Your task to perform on an android device: Open the Play Movies app and select the watchlist tab. Image 0: 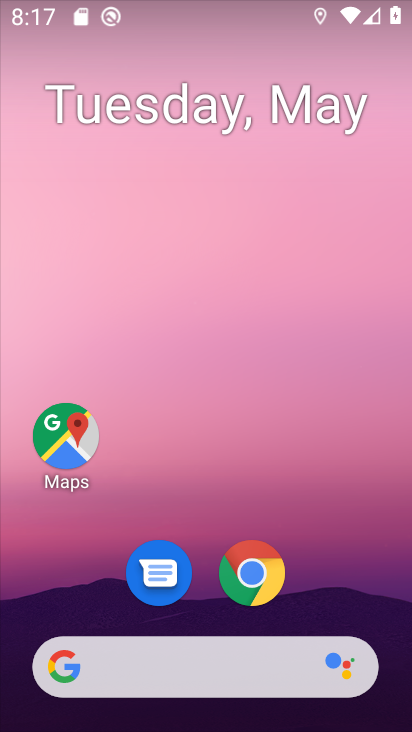
Step 0: drag from (388, 717) to (395, 305)
Your task to perform on an android device: Open the Play Movies app and select the watchlist tab. Image 1: 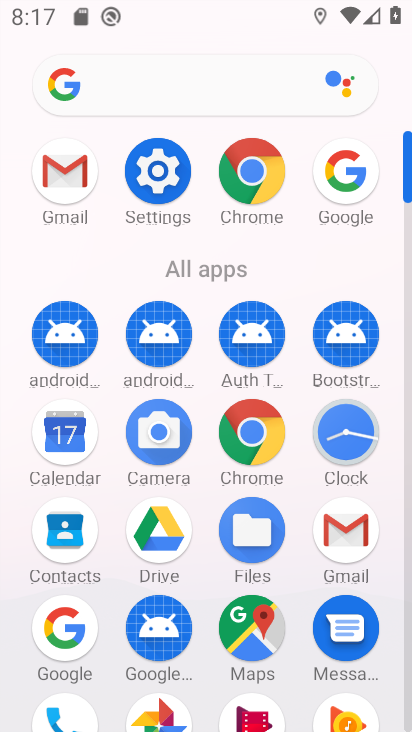
Step 1: drag from (406, 137) to (396, 34)
Your task to perform on an android device: Open the Play Movies app and select the watchlist tab. Image 2: 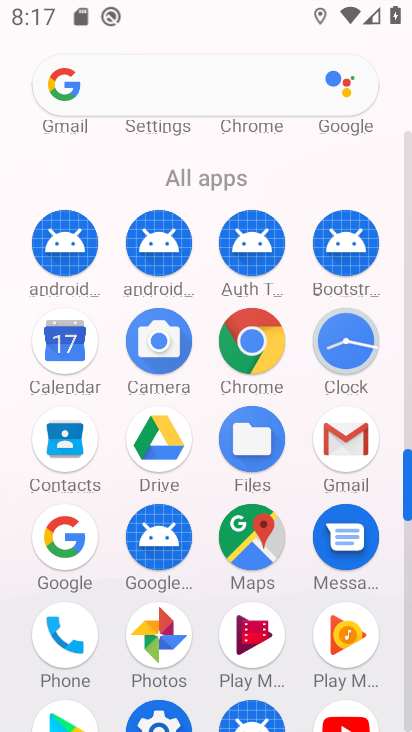
Step 2: click (260, 625)
Your task to perform on an android device: Open the Play Movies app and select the watchlist tab. Image 3: 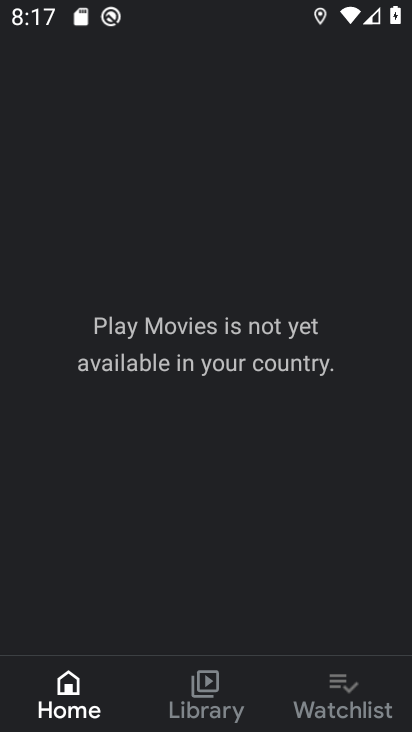
Step 3: click (324, 703)
Your task to perform on an android device: Open the Play Movies app and select the watchlist tab. Image 4: 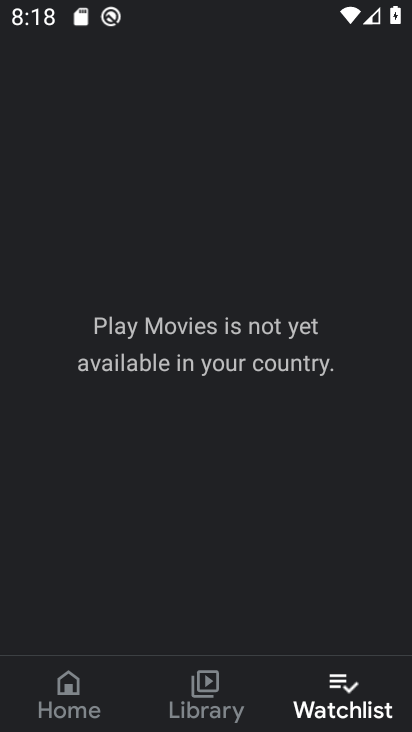
Step 4: task complete